Your task to perform on an android device: turn on wifi Image 0: 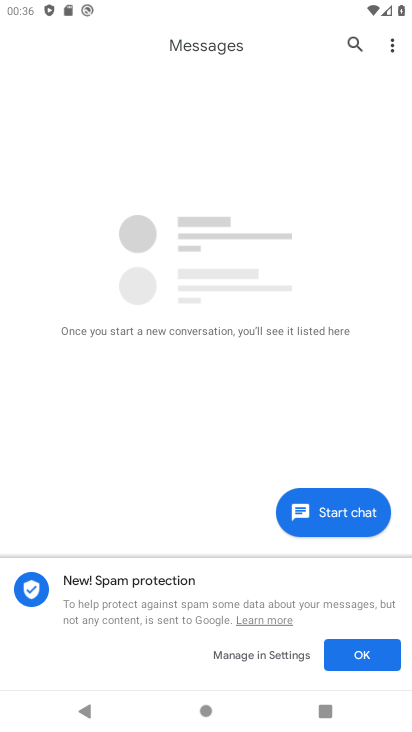
Step 0: press back button
Your task to perform on an android device: turn on wifi Image 1: 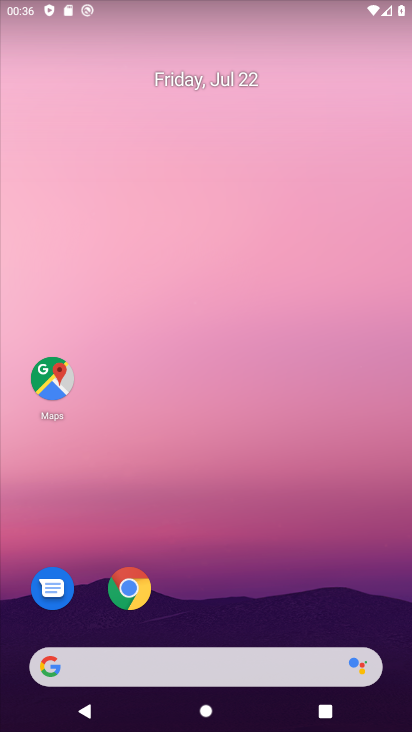
Step 1: task complete